Your task to perform on an android device: Open Google Maps and go to "Timeline" Image 0: 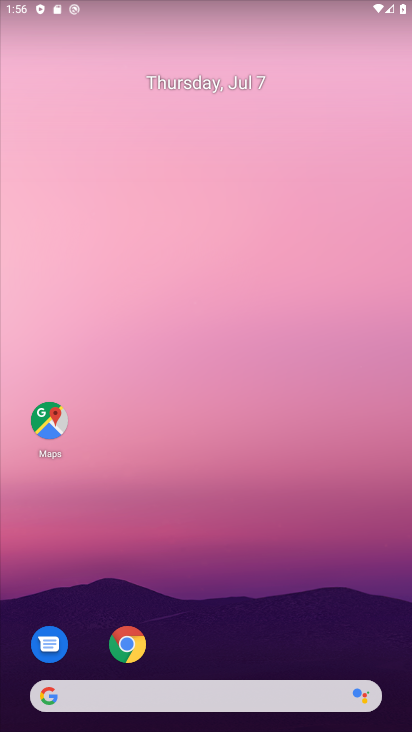
Step 0: drag from (178, 677) to (107, 104)
Your task to perform on an android device: Open Google Maps and go to "Timeline" Image 1: 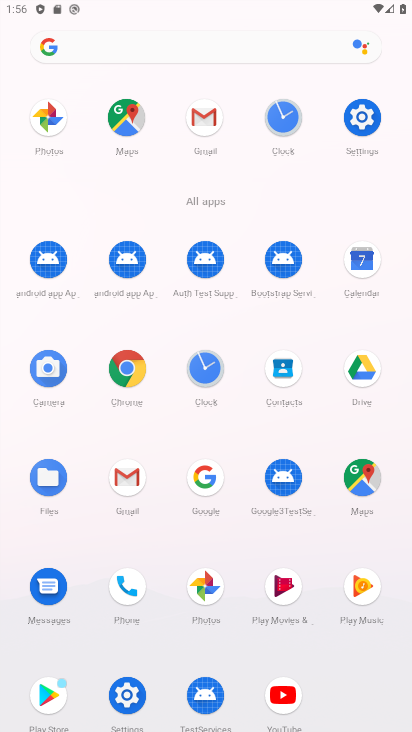
Step 1: click (370, 488)
Your task to perform on an android device: Open Google Maps and go to "Timeline" Image 2: 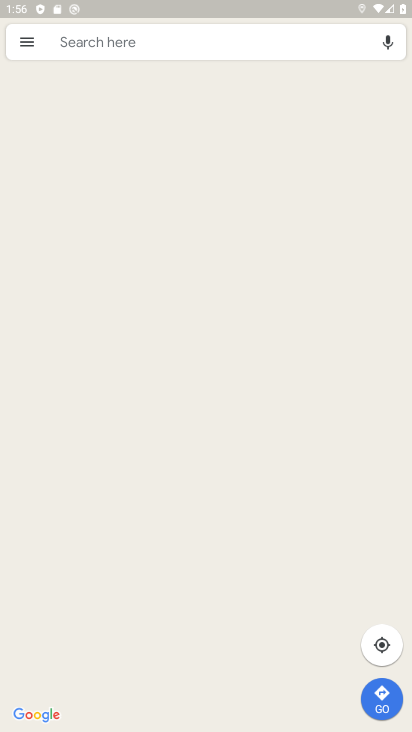
Step 2: click (20, 50)
Your task to perform on an android device: Open Google Maps and go to "Timeline" Image 3: 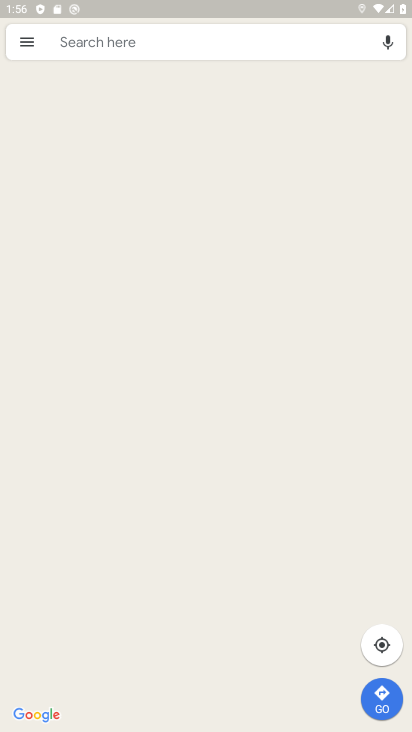
Step 3: click (26, 41)
Your task to perform on an android device: Open Google Maps and go to "Timeline" Image 4: 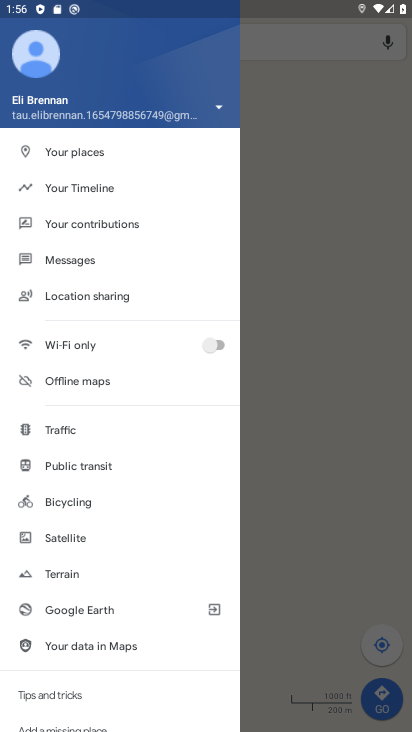
Step 4: click (52, 184)
Your task to perform on an android device: Open Google Maps and go to "Timeline" Image 5: 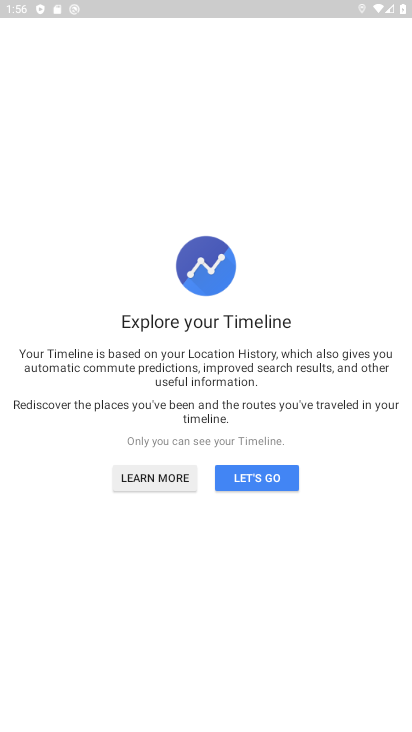
Step 5: drag from (132, 141) to (182, 329)
Your task to perform on an android device: Open Google Maps and go to "Timeline" Image 6: 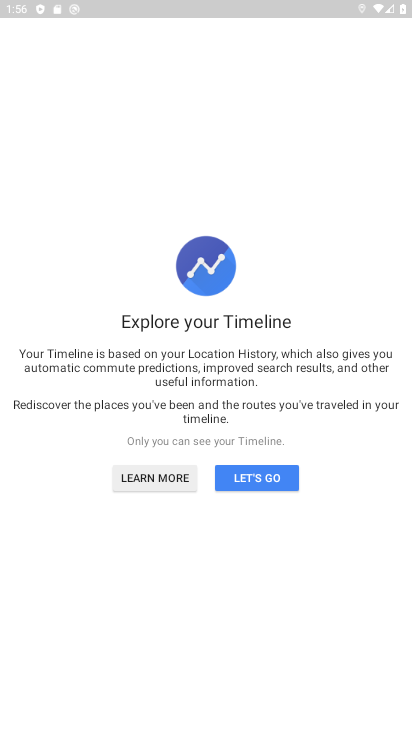
Step 6: click (239, 461)
Your task to perform on an android device: Open Google Maps and go to "Timeline" Image 7: 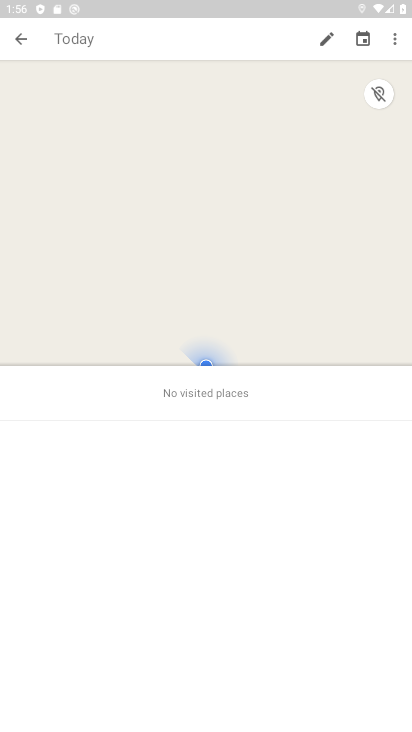
Step 7: task complete